Your task to perform on an android device: Search for "jbl charge 4" on newegg.com, select the first entry, and add it to the cart. Image 0: 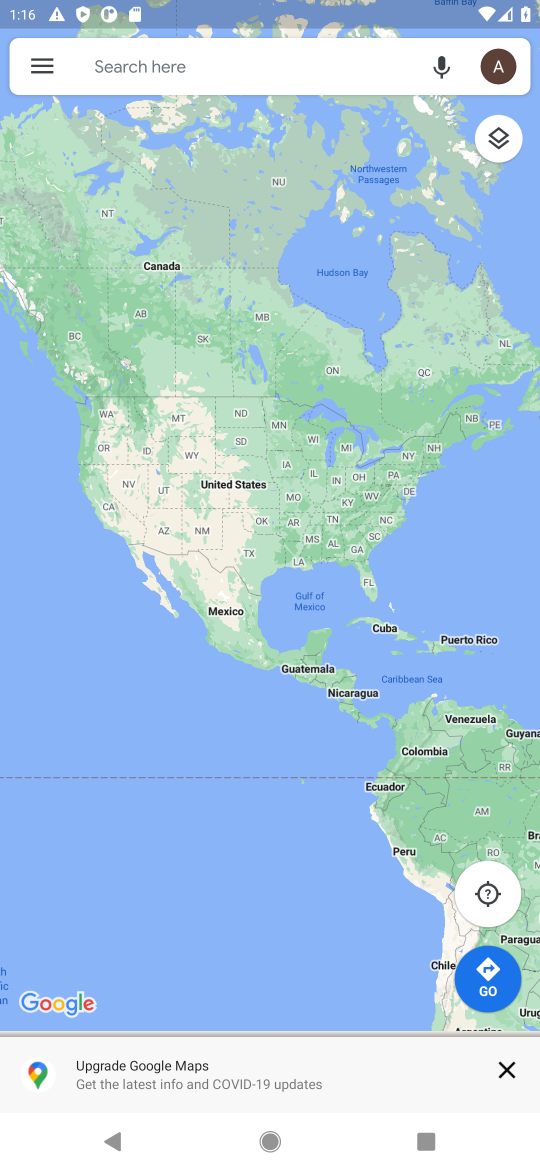
Step 0: press home button
Your task to perform on an android device: Search for "jbl charge 4" on newegg.com, select the first entry, and add it to the cart. Image 1: 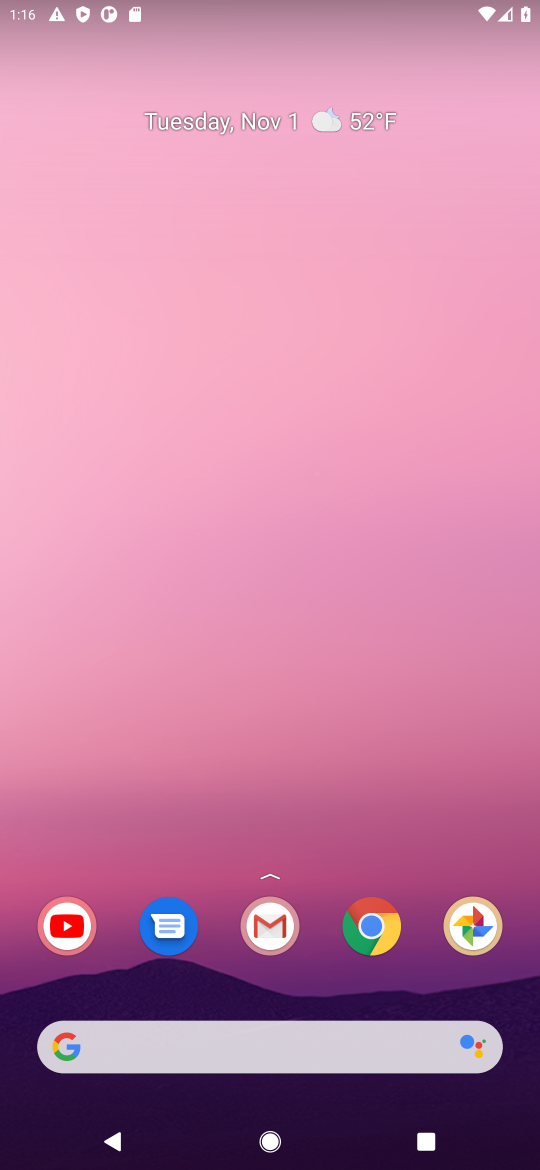
Step 1: click (364, 941)
Your task to perform on an android device: Search for "jbl charge 4" on newegg.com, select the first entry, and add it to the cart. Image 2: 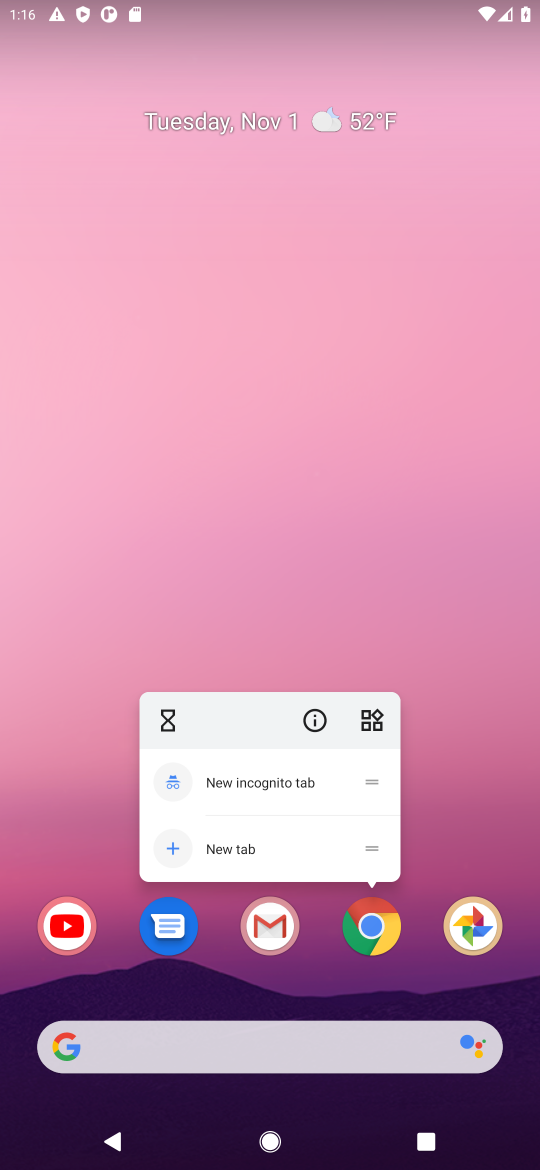
Step 2: click (377, 930)
Your task to perform on an android device: Search for "jbl charge 4" on newegg.com, select the first entry, and add it to the cart. Image 3: 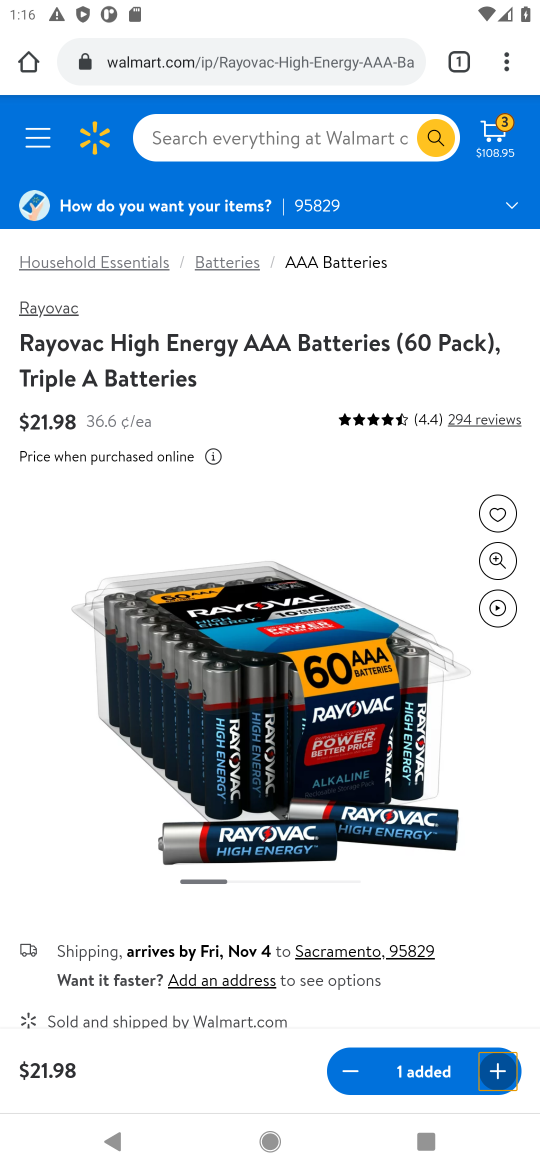
Step 3: click (220, 137)
Your task to perform on an android device: Search for "jbl charge 4" on newegg.com, select the first entry, and add it to the cart. Image 4: 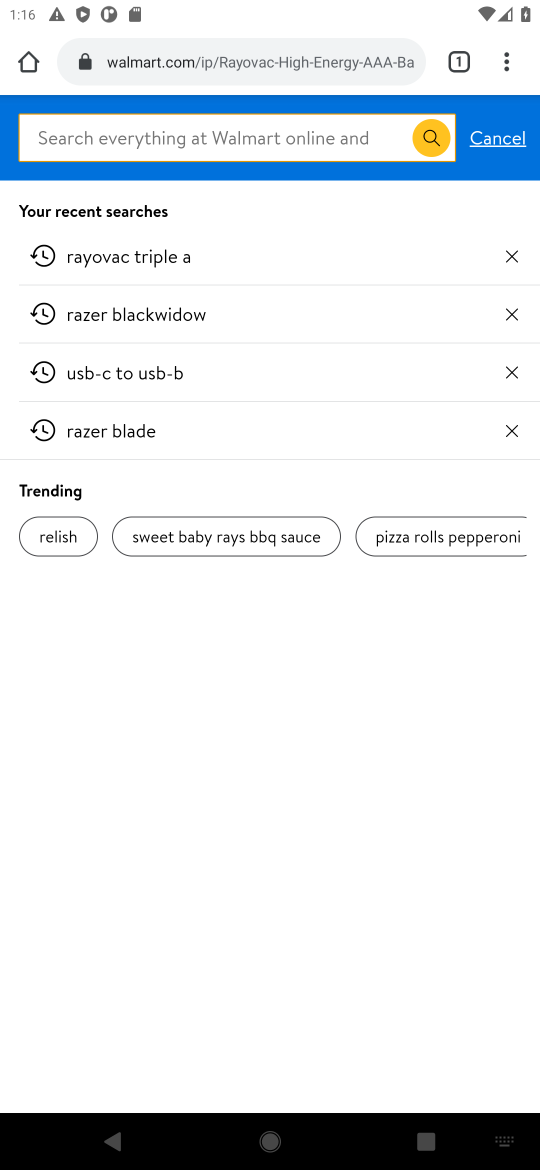
Step 4: click (218, 60)
Your task to perform on an android device: Search for "jbl charge 4" on newegg.com, select the first entry, and add it to the cart. Image 5: 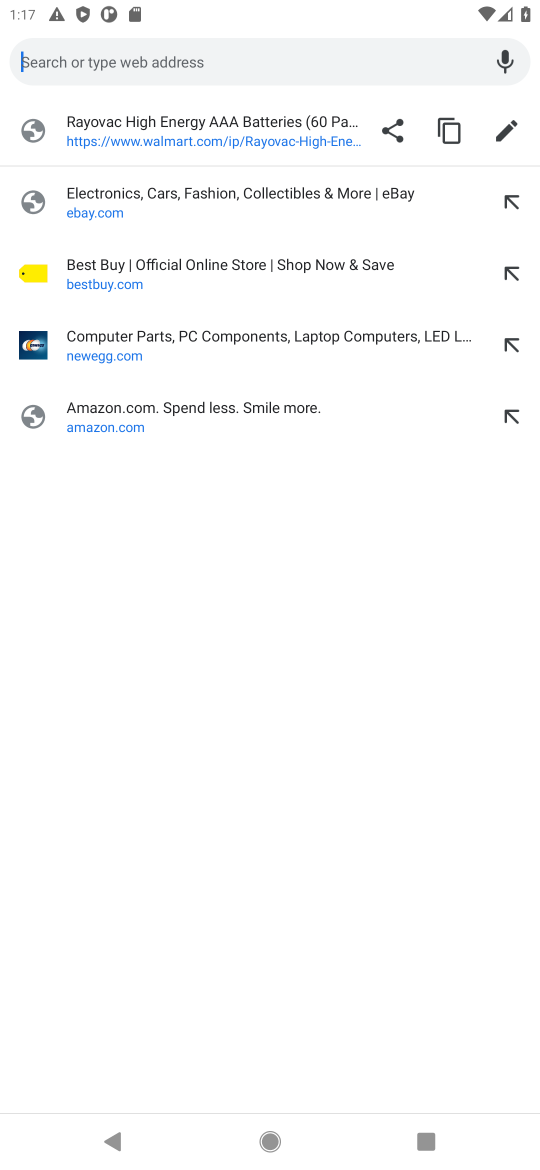
Step 5: type "newegg"
Your task to perform on an android device: Search for "jbl charge 4" on newegg.com, select the first entry, and add it to the cart. Image 6: 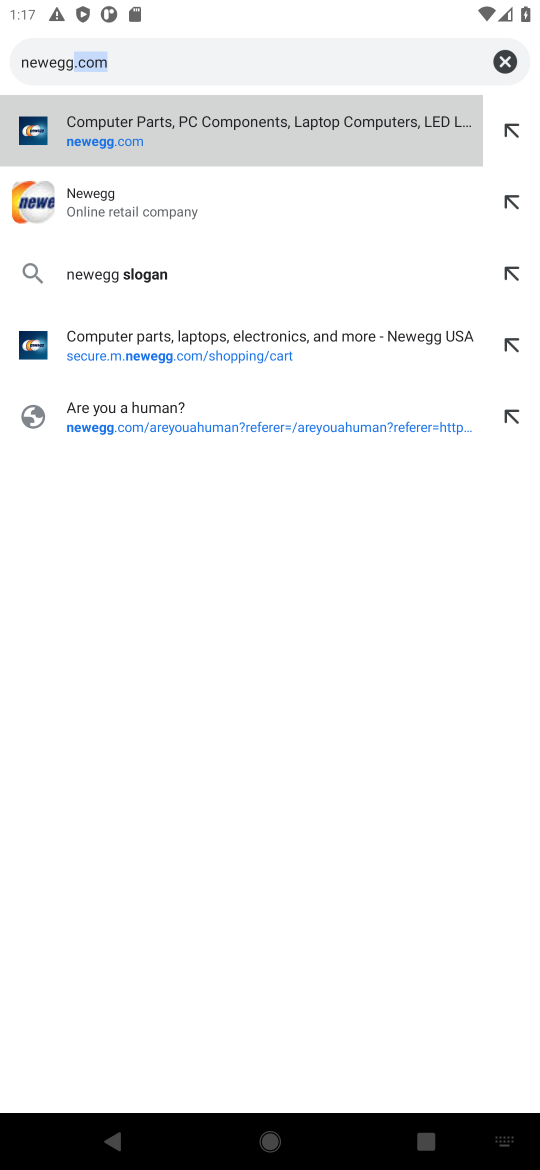
Step 6: click (172, 148)
Your task to perform on an android device: Search for "jbl charge 4" on newegg.com, select the first entry, and add it to the cart. Image 7: 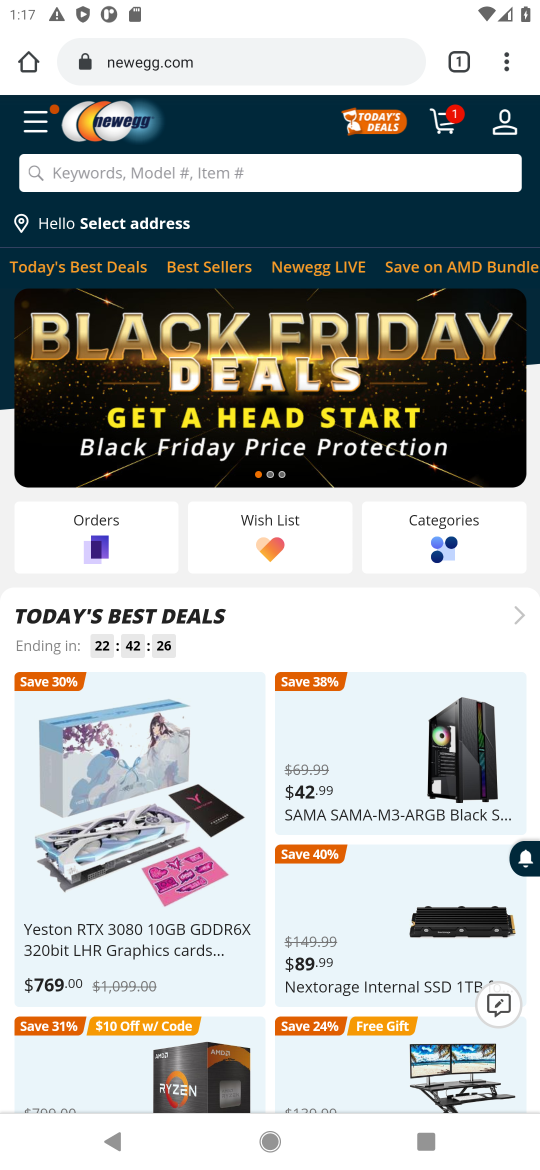
Step 7: click (179, 172)
Your task to perform on an android device: Search for "jbl charge 4" on newegg.com, select the first entry, and add it to the cart. Image 8: 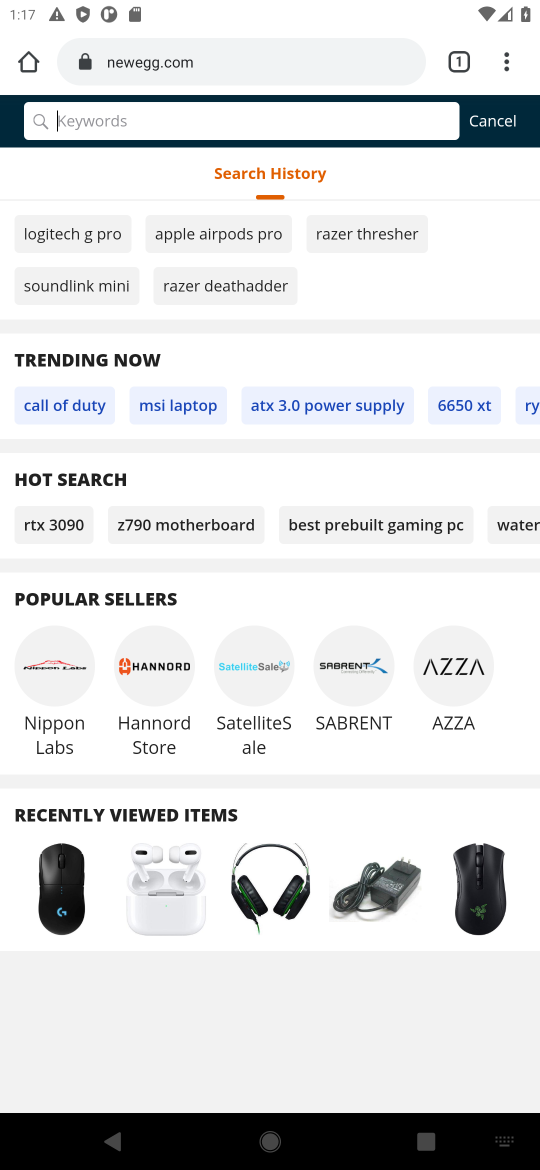
Step 8: type "jbl charge 4"
Your task to perform on an android device: Search for "jbl charge 4" on newegg.com, select the first entry, and add it to the cart. Image 9: 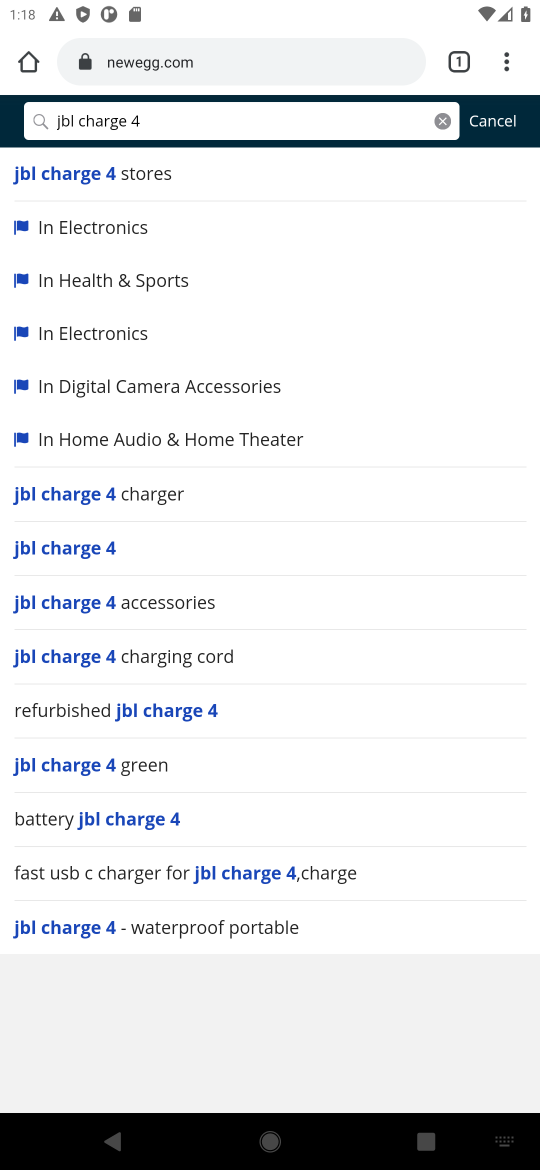
Step 9: press enter
Your task to perform on an android device: Search for "jbl charge 4" on newegg.com, select the first entry, and add it to the cart. Image 10: 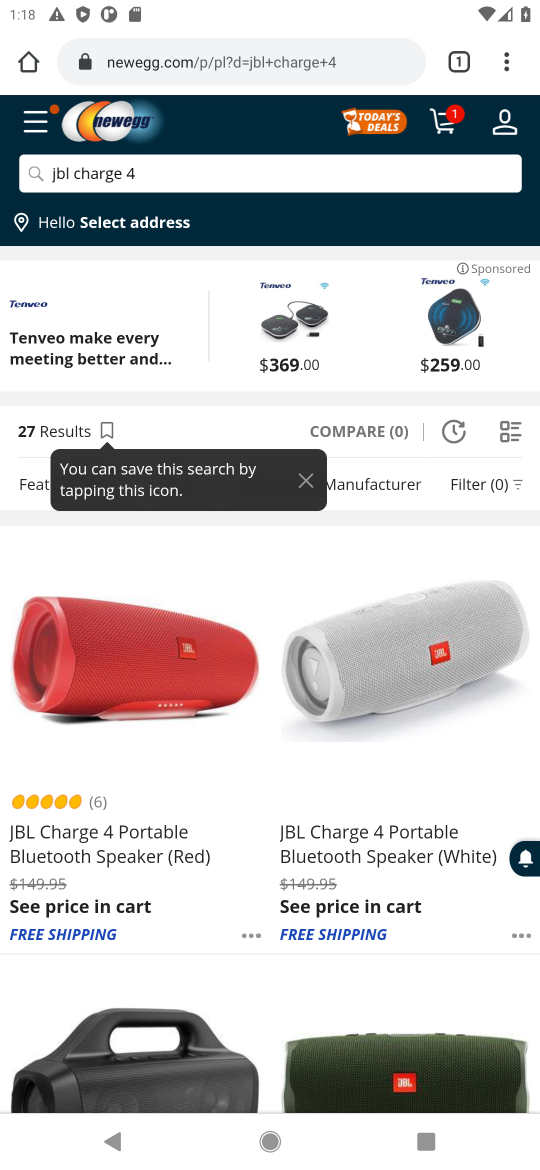
Step 10: click (122, 838)
Your task to perform on an android device: Search for "jbl charge 4" on newegg.com, select the first entry, and add it to the cart. Image 11: 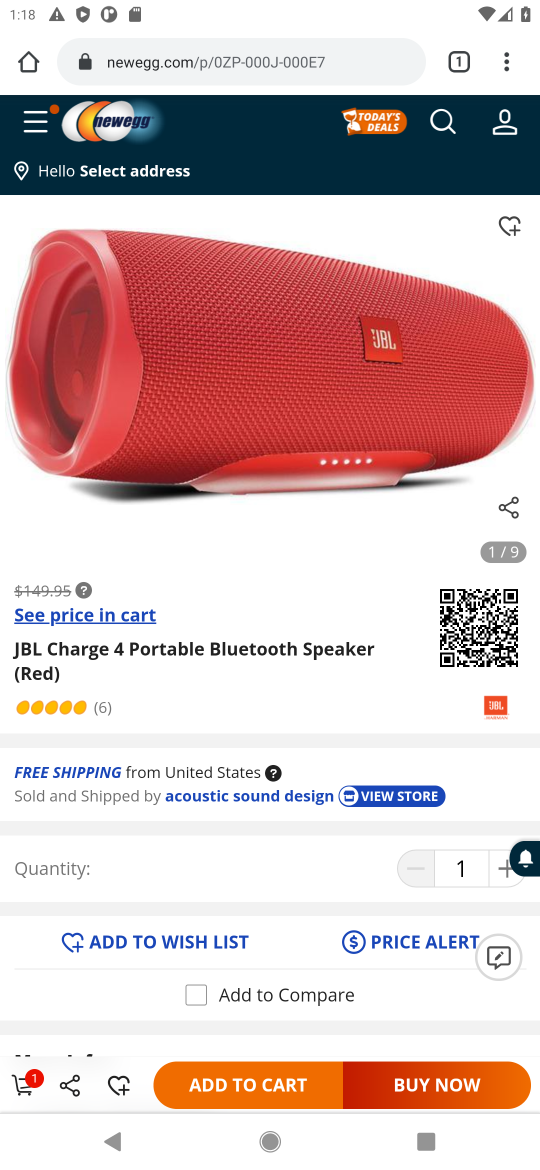
Step 11: click (234, 1098)
Your task to perform on an android device: Search for "jbl charge 4" on newegg.com, select the first entry, and add it to the cart. Image 12: 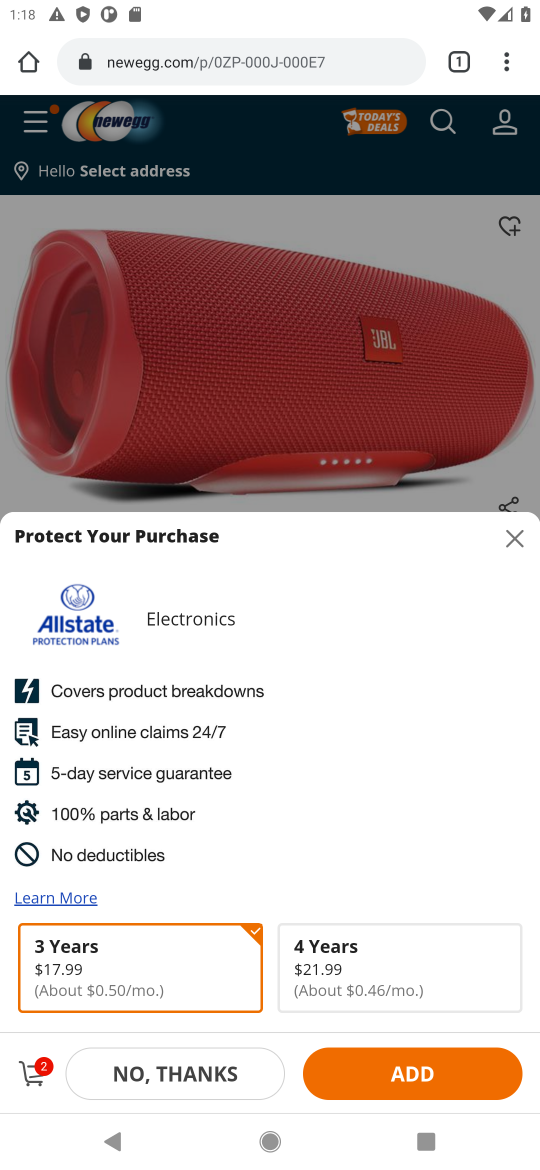
Step 12: task complete